Your task to perform on an android device: Open the Play Movies app and select the watchlist tab. Image 0: 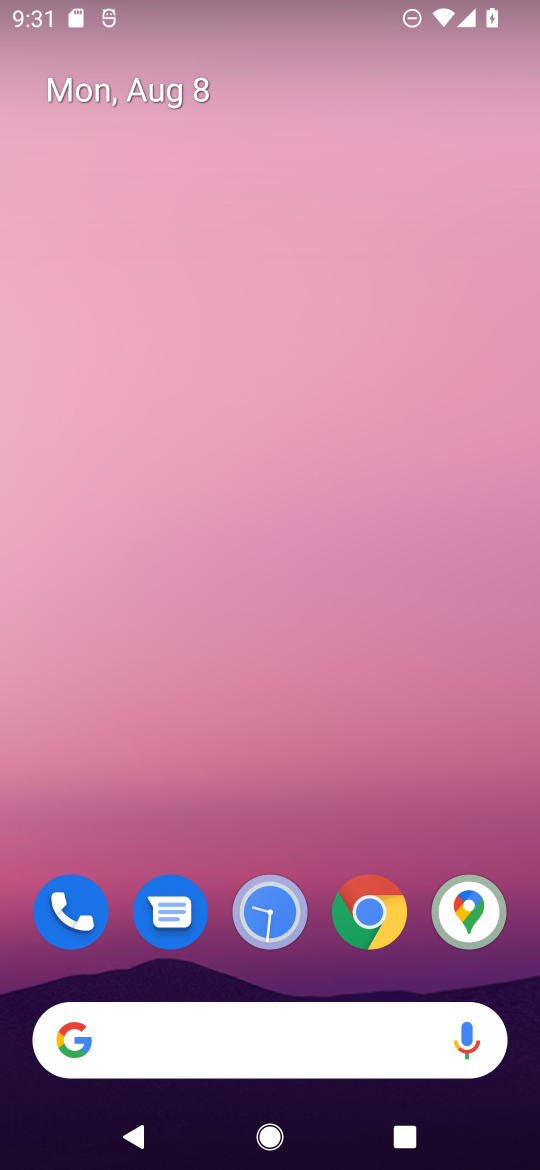
Step 0: drag from (492, 983) to (254, 55)
Your task to perform on an android device: Open the Play Movies app and select the watchlist tab. Image 1: 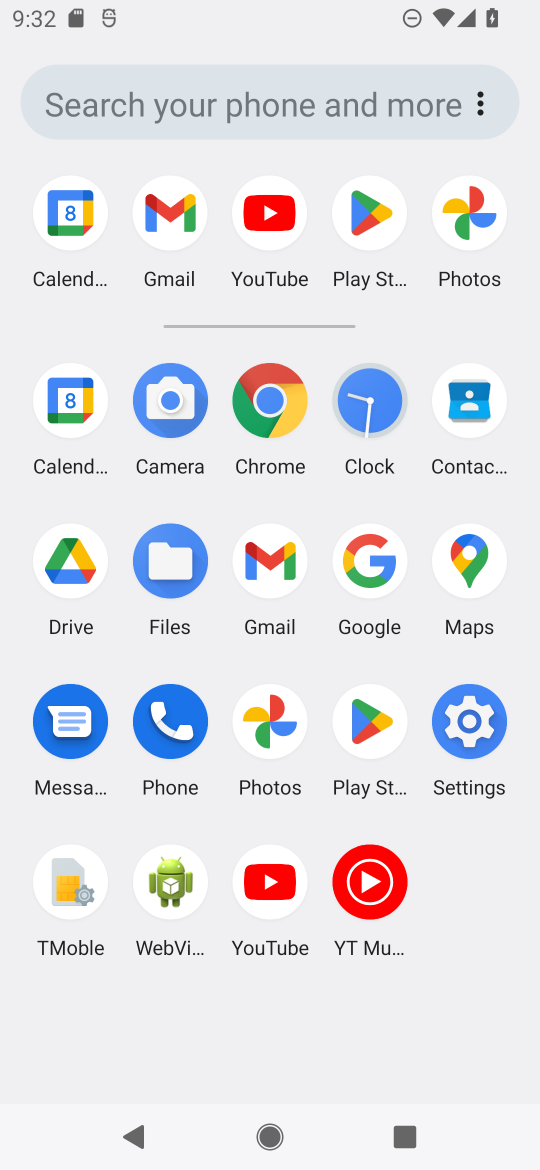
Step 1: task complete